Your task to perform on an android device: toggle airplane mode Image 0: 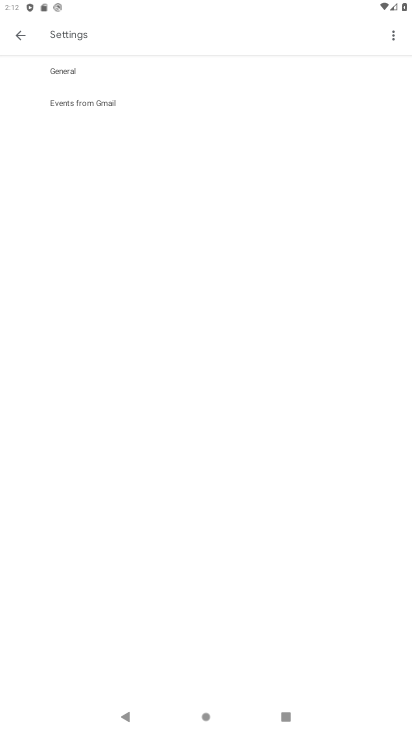
Step 0: press home button
Your task to perform on an android device: toggle airplane mode Image 1: 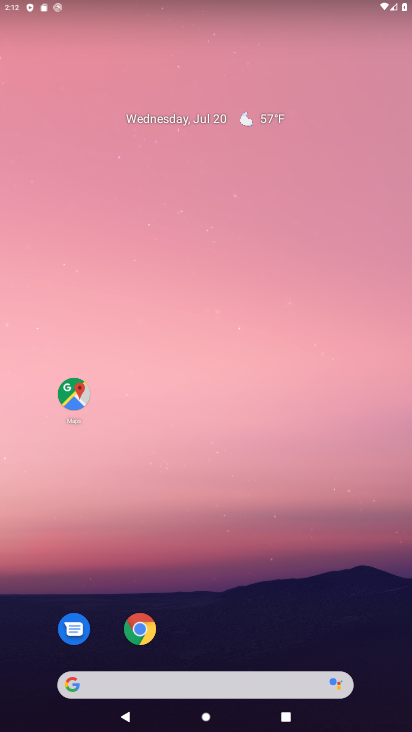
Step 1: drag from (204, 629) to (240, 60)
Your task to perform on an android device: toggle airplane mode Image 2: 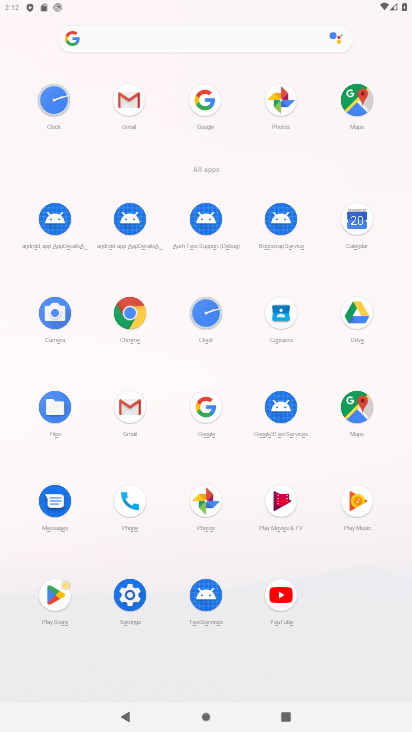
Step 2: click (139, 600)
Your task to perform on an android device: toggle airplane mode Image 3: 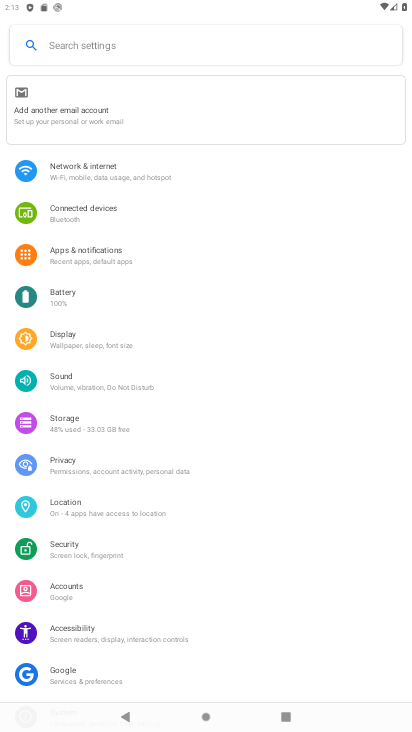
Step 3: click (140, 191)
Your task to perform on an android device: toggle airplane mode Image 4: 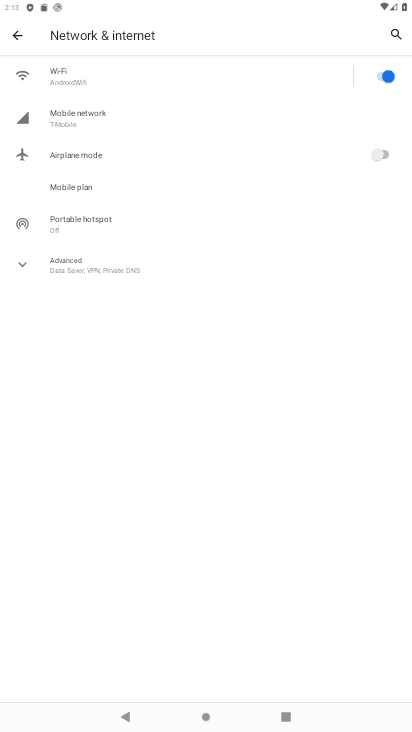
Step 4: click (389, 145)
Your task to perform on an android device: toggle airplane mode Image 5: 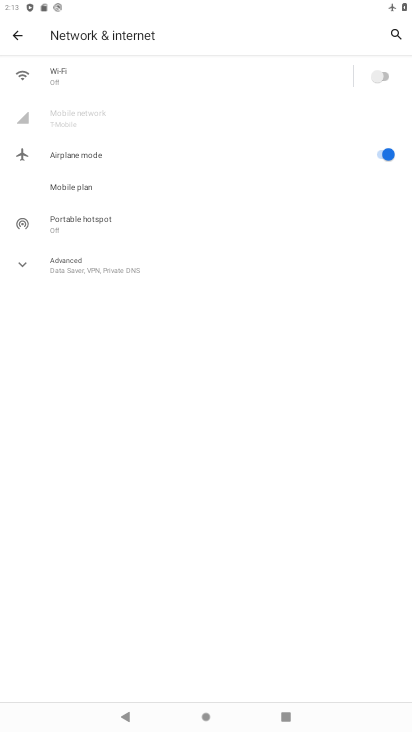
Step 5: task complete